Your task to perform on an android device: manage bookmarks in the chrome app Image 0: 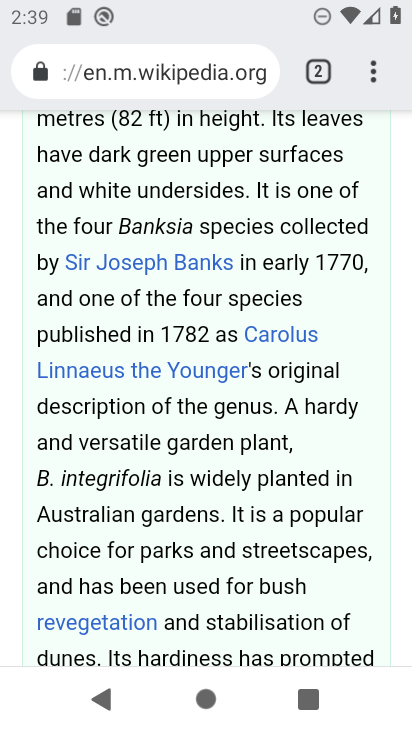
Step 0: press home button
Your task to perform on an android device: manage bookmarks in the chrome app Image 1: 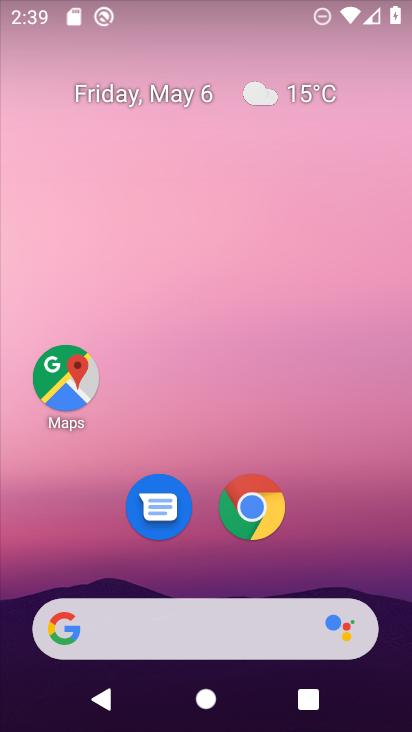
Step 1: drag from (355, 524) to (311, 160)
Your task to perform on an android device: manage bookmarks in the chrome app Image 2: 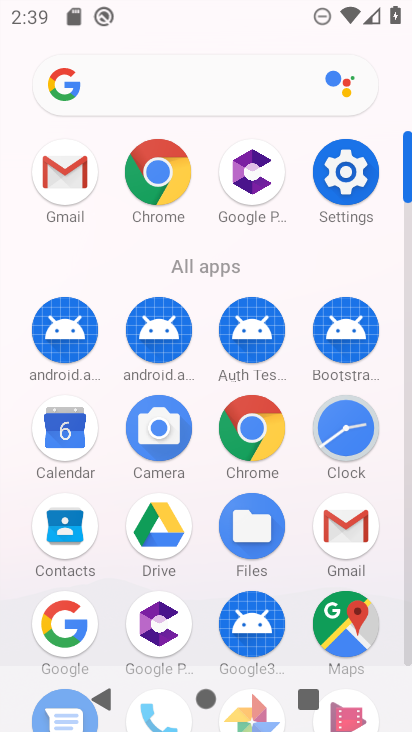
Step 2: click (272, 425)
Your task to perform on an android device: manage bookmarks in the chrome app Image 3: 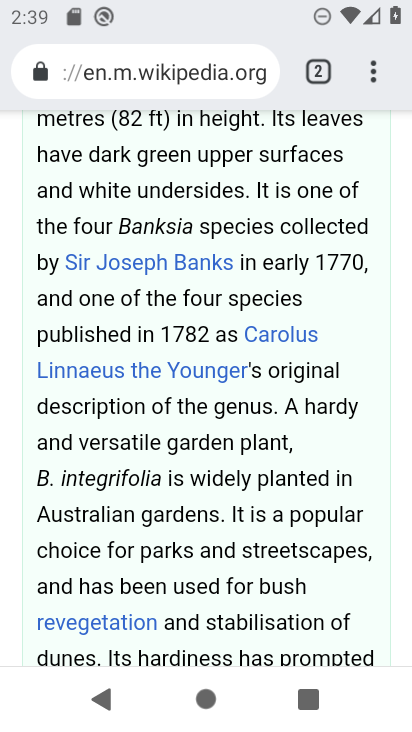
Step 3: click (309, 65)
Your task to perform on an android device: manage bookmarks in the chrome app Image 4: 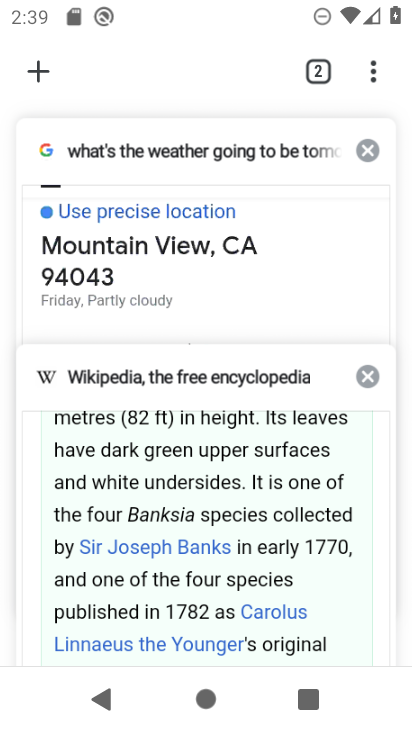
Step 4: click (39, 64)
Your task to perform on an android device: manage bookmarks in the chrome app Image 5: 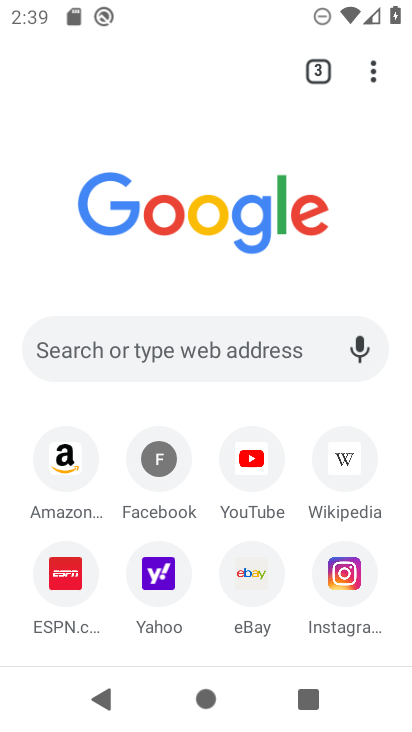
Step 5: task complete